Your task to perform on an android device: turn on location history Image 0: 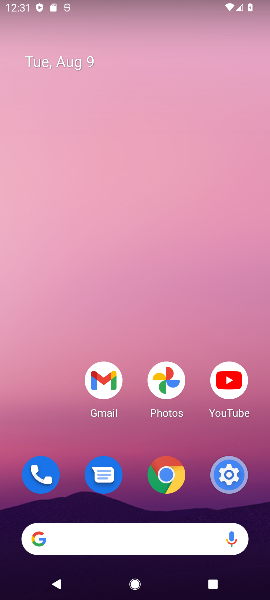
Step 0: press home button
Your task to perform on an android device: turn on location history Image 1: 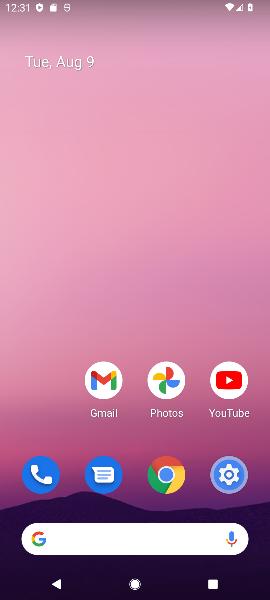
Step 1: click (229, 479)
Your task to perform on an android device: turn on location history Image 2: 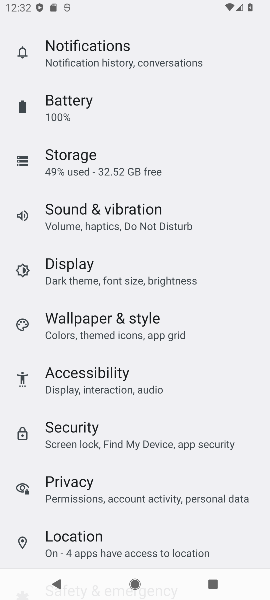
Step 2: click (91, 538)
Your task to perform on an android device: turn on location history Image 3: 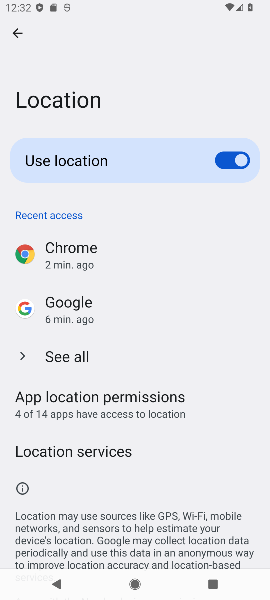
Step 3: click (81, 446)
Your task to perform on an android device: turn on location history Image 4: 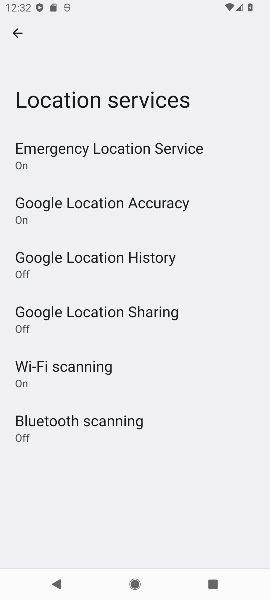
Step 4: click (135, 265)
Your task to perform on an android device: turn on location history Image 5: 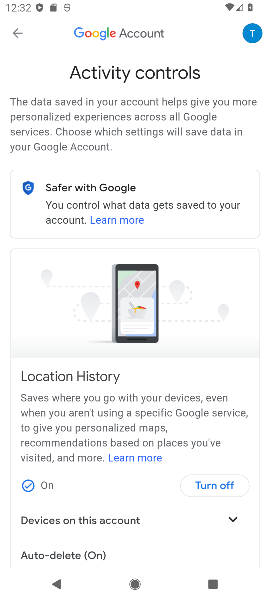
Step 5: task complete